Your task to perform on an android device: change keyboard looks Image 0: 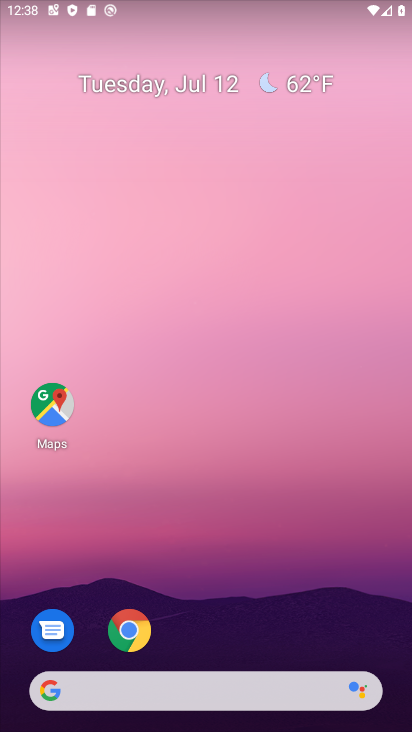
Step 0: drag from (216, 569) to (298, 151)
Your task to perform on an android device: change keyboard looks Image 1: 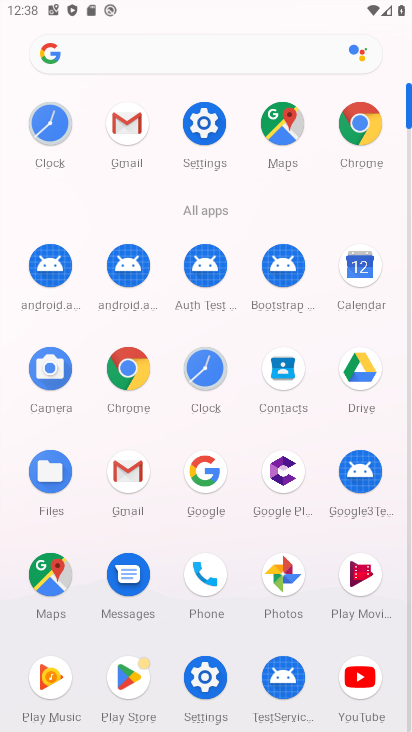
Step 1: click (209, 121)
Your task to perform on an android device: change keyboard looks Image 2: 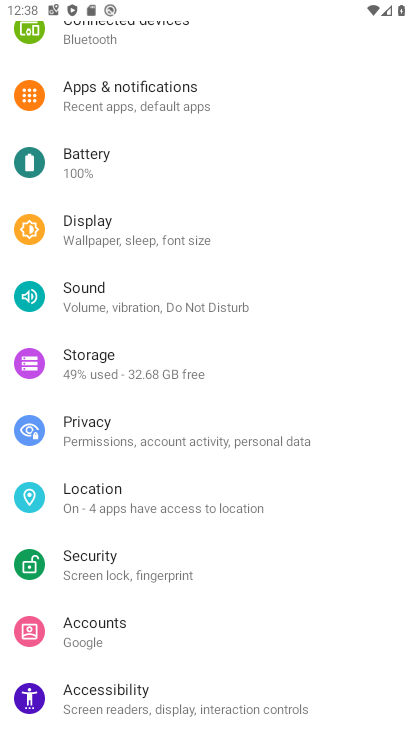
Step 2: drag from (223, 572) to (195, 282)
Your task to perform on an android device: change keyboard looks Image 3: 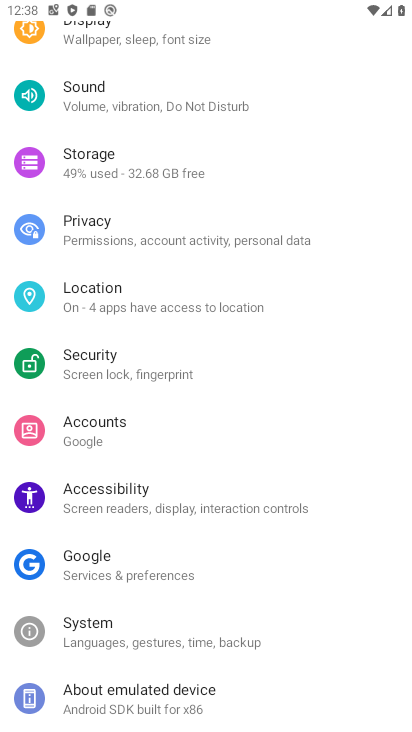
Step 3: click (80, 619)
Your task to perform on an android device: change keyboard looks Image 4: 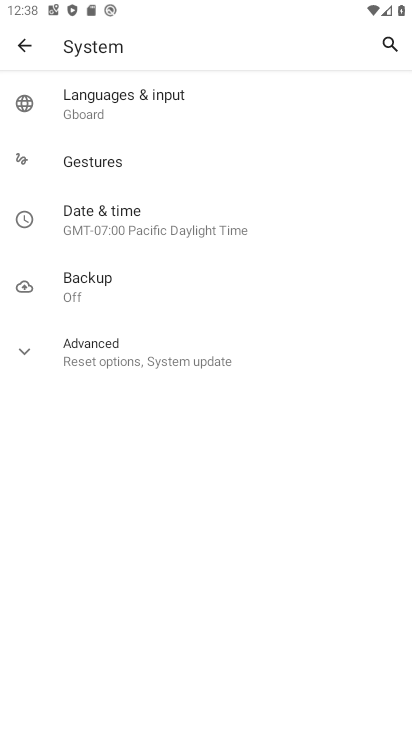
Step 4: click (104, 91)
Your task to perform on an android device: change keyboard looks Image 5: 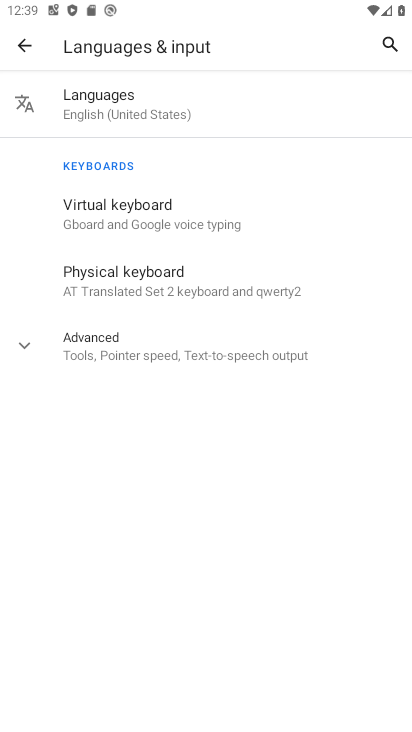
Step 5: click (122, 210)
Your task to perform on an android device: change keyboard looks Image 6: 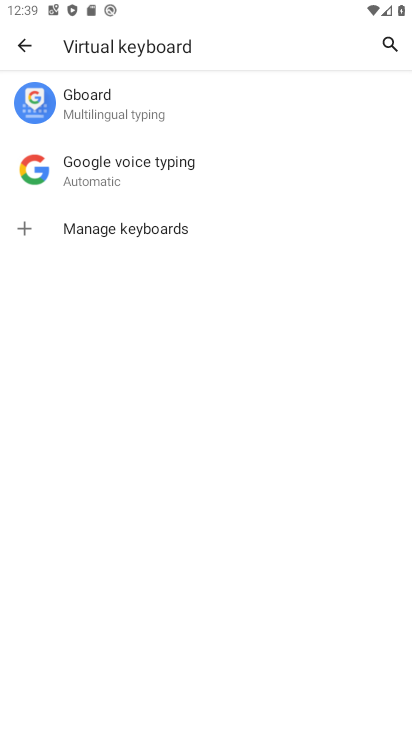
Step 6: click (94, 93)
Your task to perform on an android device: change keyboard looks Image 7: 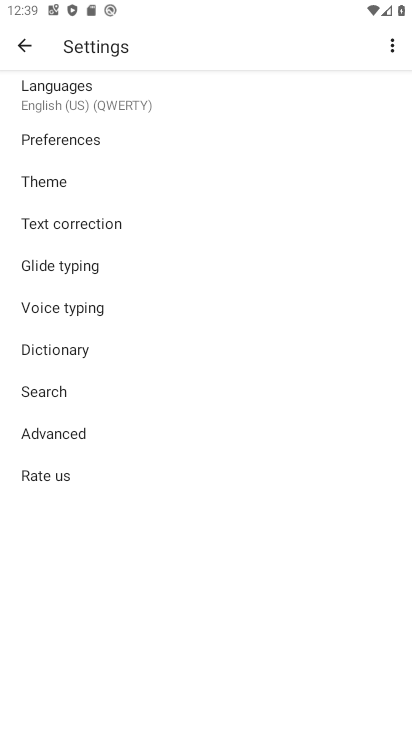
Step 7: click (50, 176)
Your task to perform on an android device: change keyboard looks Image 8: 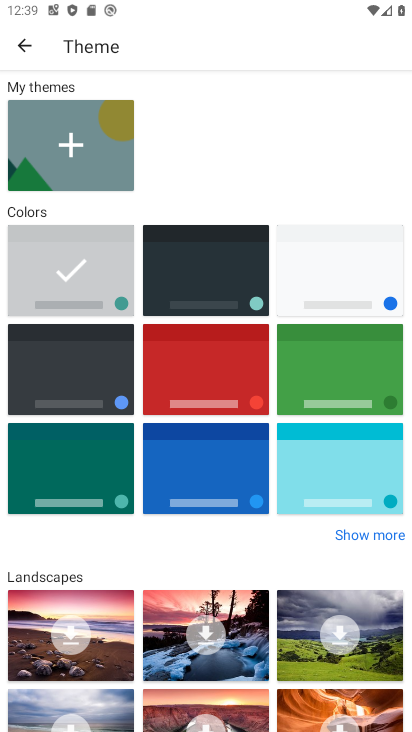
Step 8: click (183, 257)
Your task to perform on an android device: change keyboard looks Image 9: 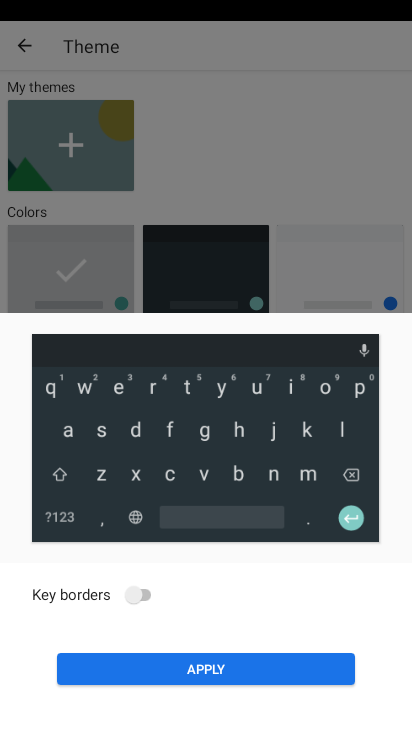
Step 9: click (202, 661)
Your task to perform on an android device: change keyboard looks Image 10: 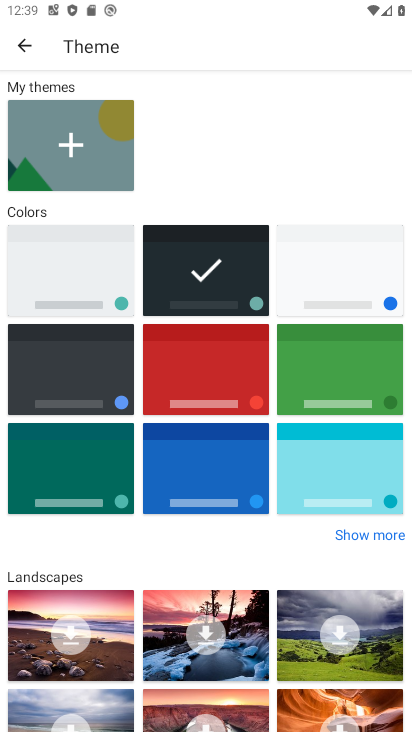
Step 10: task complete